Your task to perform on an android device: turn off location history Image 0: 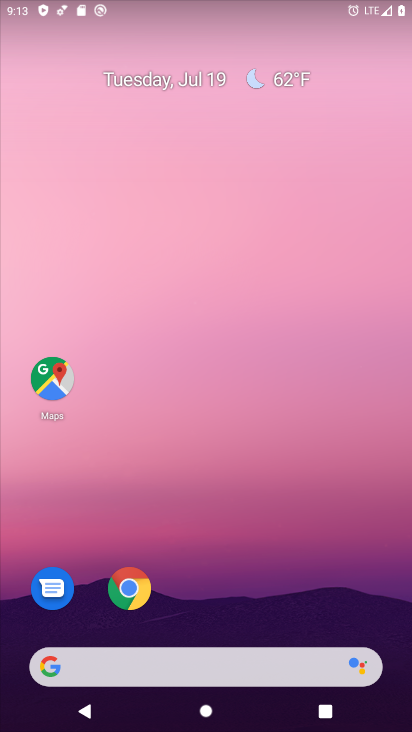
Step 0: drag from (251, 591) to (403, 71)
Your task to perform on an android device: turn off location history Image 1: 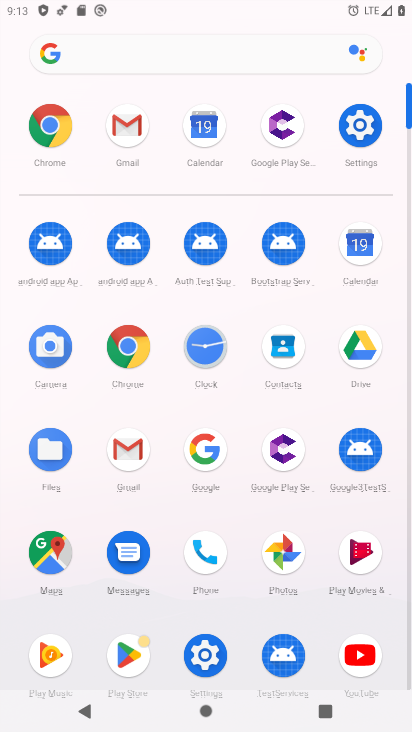
Step 1: click (360, 126)
Your task to perform on an android device: turn off location history Image 2: 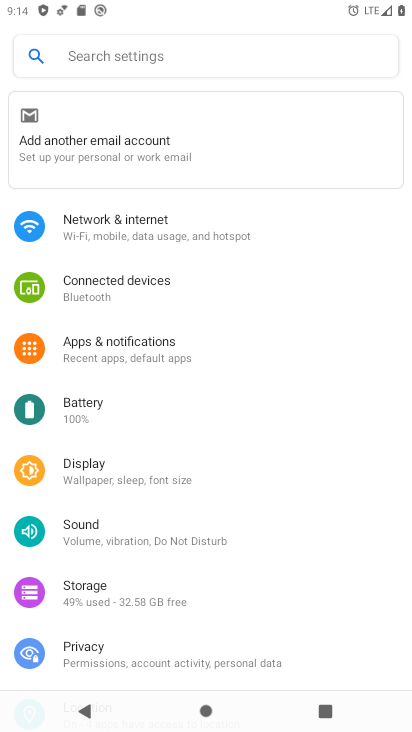
Step 2: drag from (167, 595) to (249, 114)
Your task to perform on an android device: turn off location history Image 3: 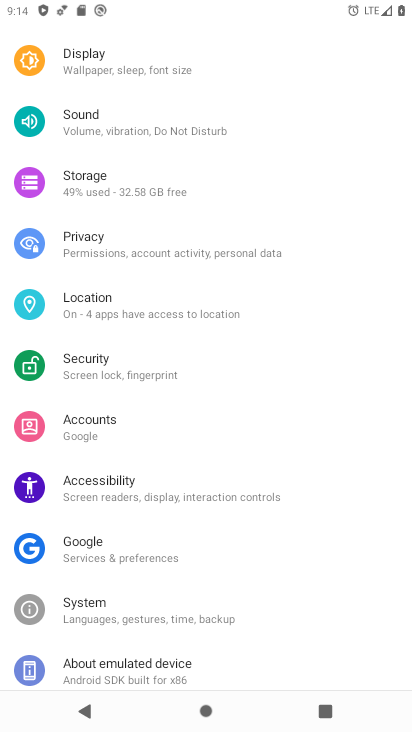
Step 3: click (85, 327)
Your task to perform on an android device: turn off location history Image 4: 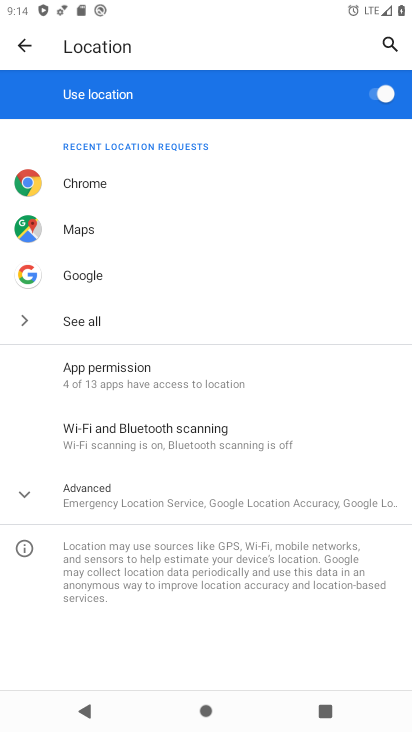
Step 4: click (386, 91)
Your task to perform on an android device: turn off location history Image 5: 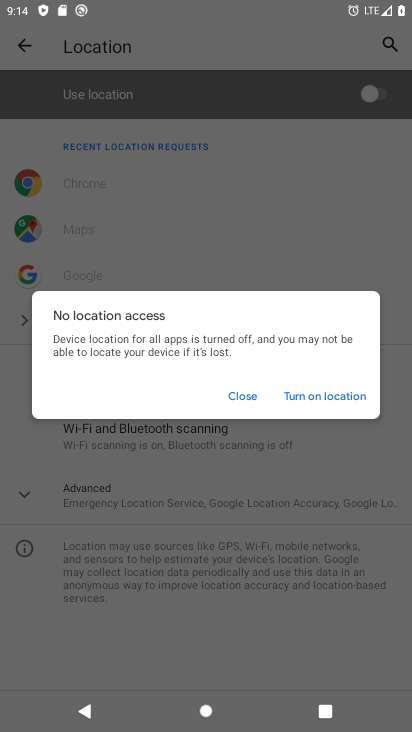
Step 5: task complete